Your task to perform on an android device: Open calendar and show me the first week of next month Image 0: 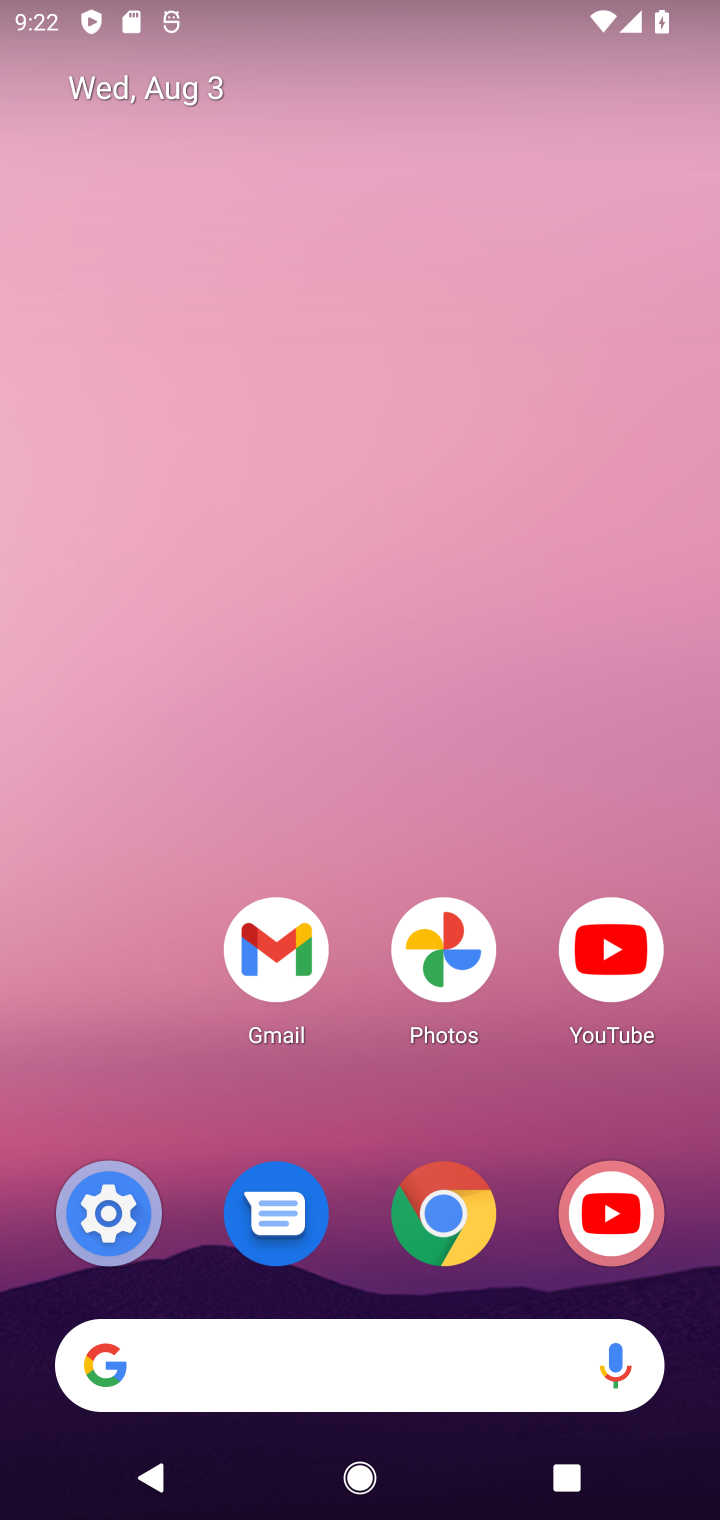
Step 0: drag from (335, 1129) to (336, 95)
Your task to perform on an android device: Open calendar and show me the first week of next month Image 1: 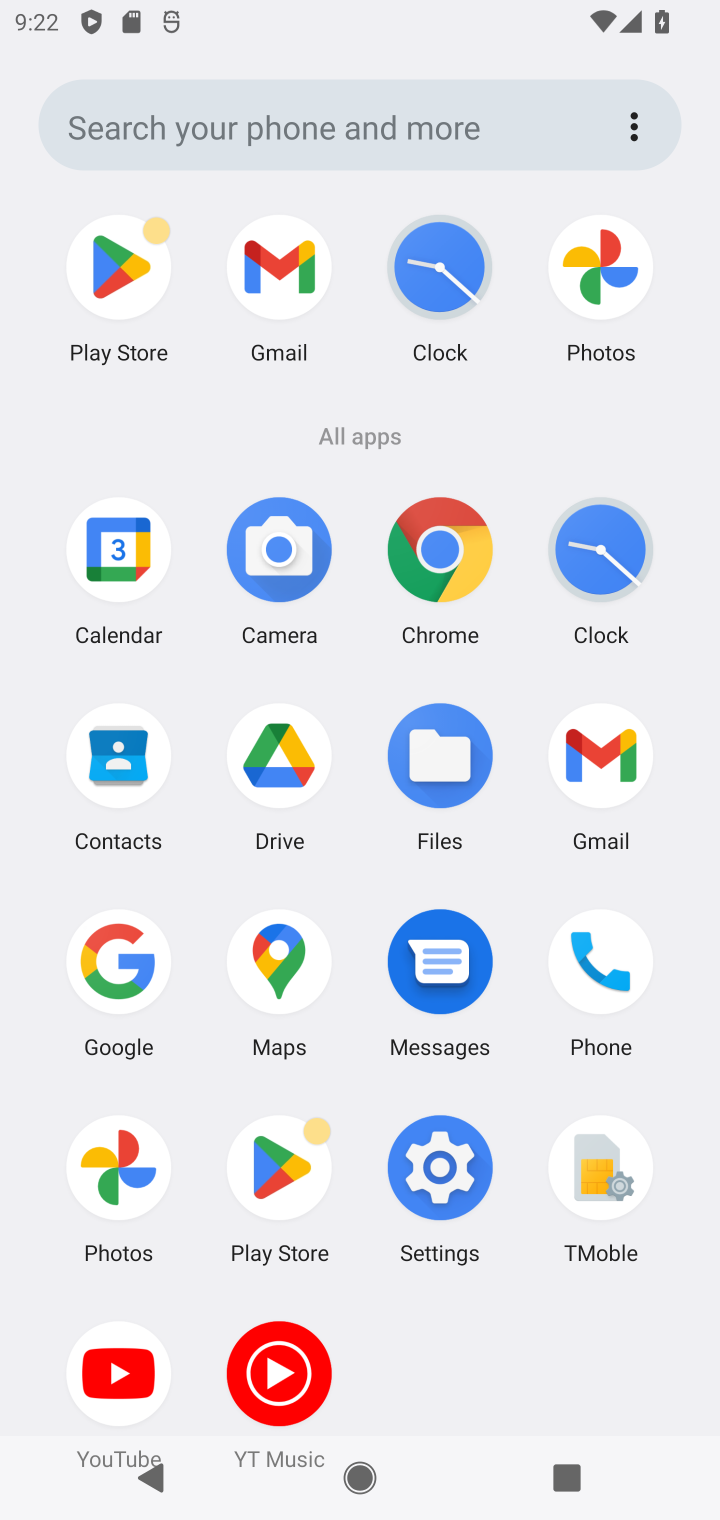
Step 1: click (104, 552)
Your task to perform on an android device: Open calendar and show me the first week of next month Image 2: 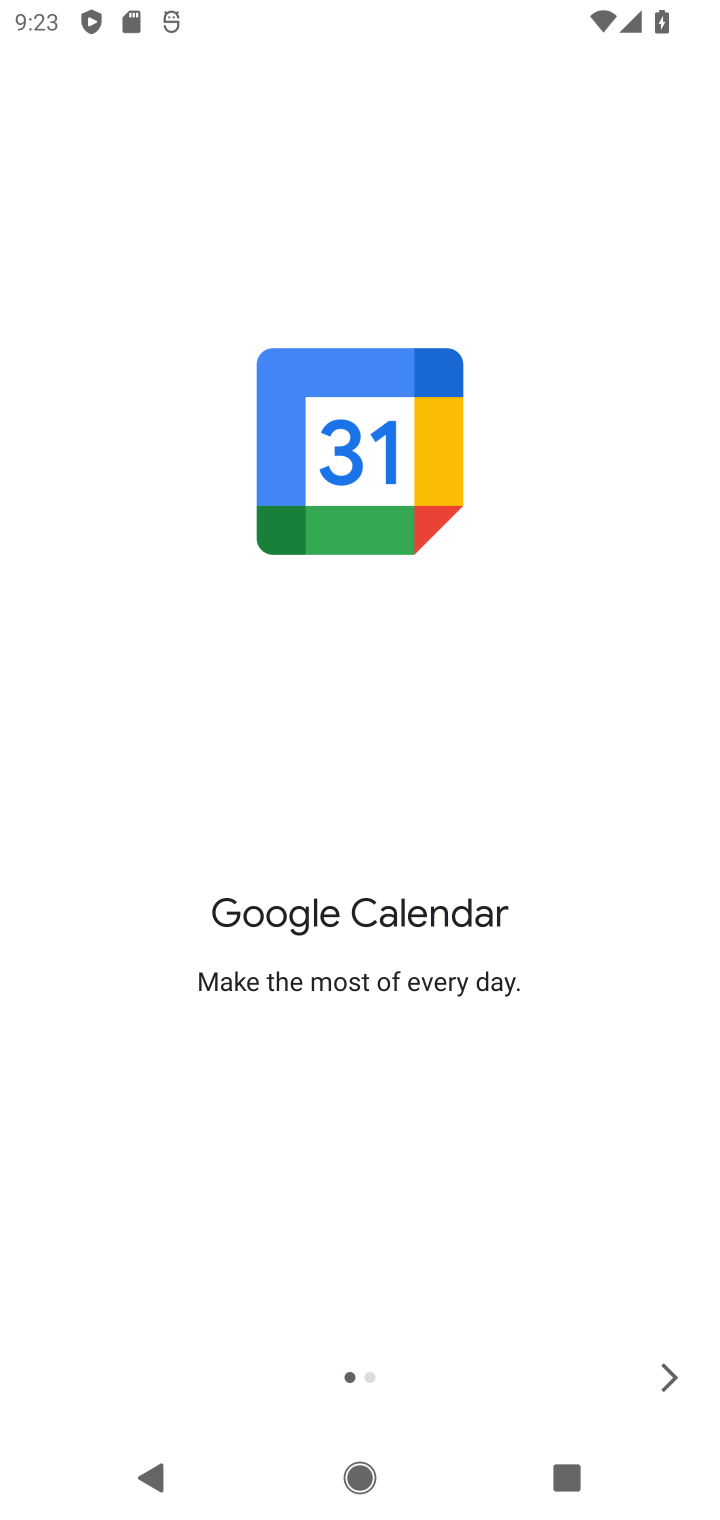
Step 2: click (680, 1381)
Your task to perform on an android device: Open calendar and show me the first week of next month Image 3: 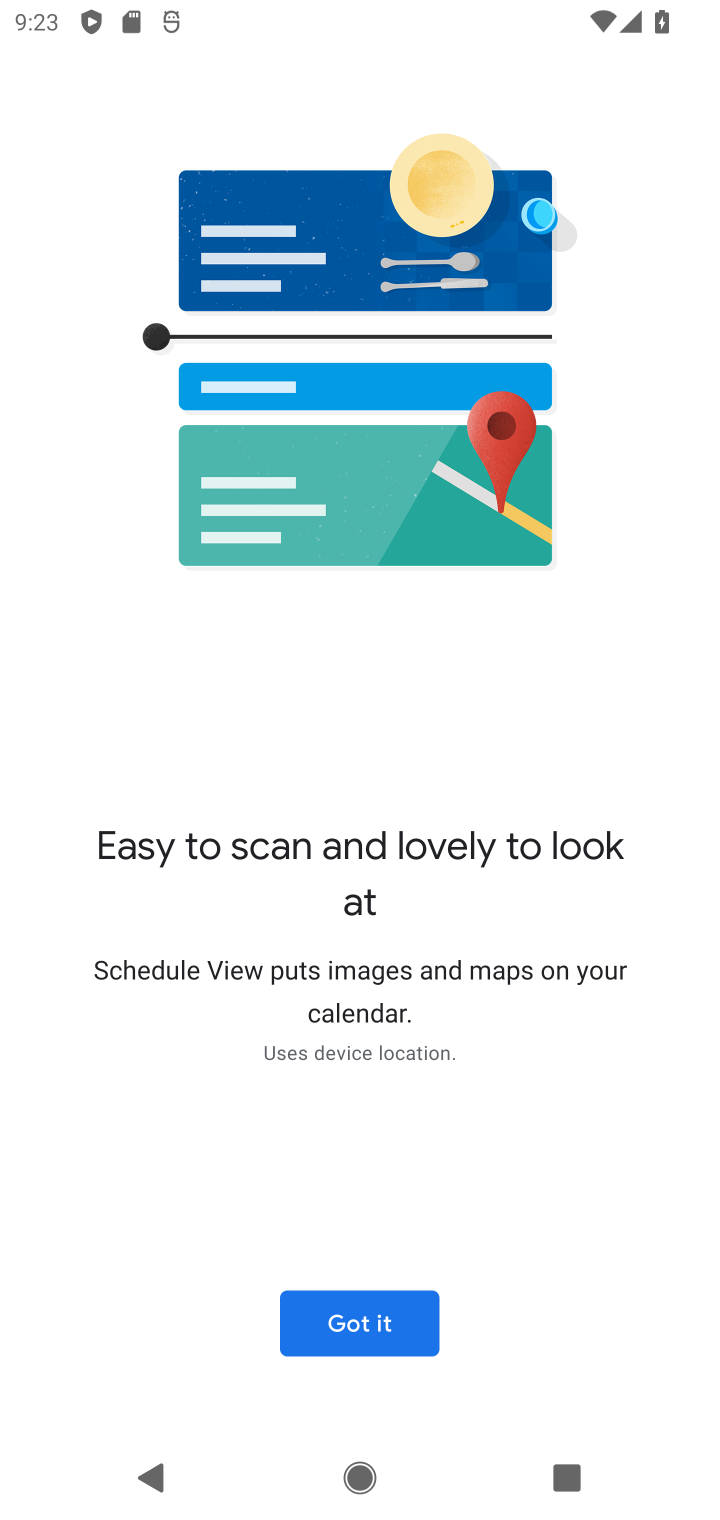
Step 3: click (398, 1319)
Your task to perform on an android device: Open calendar and show me the first week of next month Image 4: 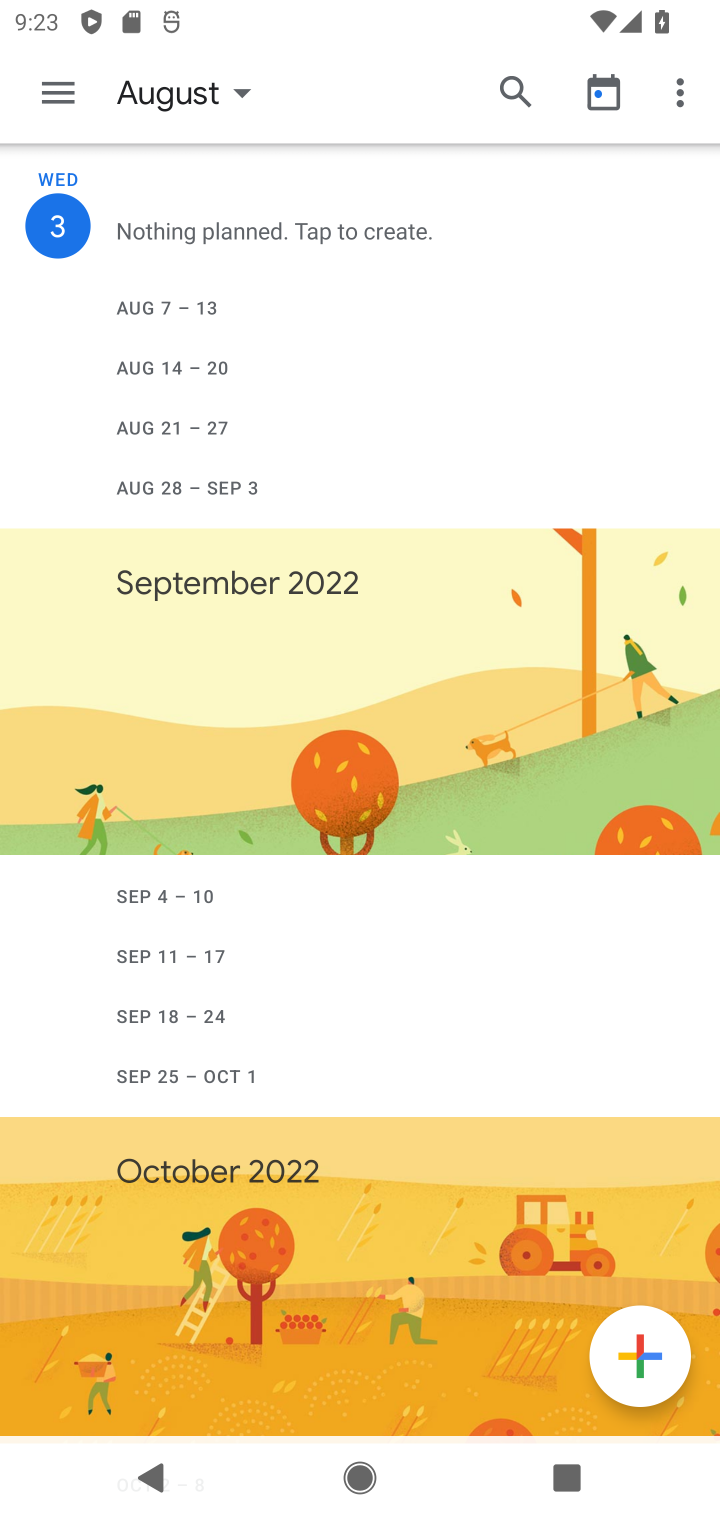
Step 4: click (74, 87)
Your task to perform on an android device: Open calendar and show me the first week of next month Image 5: 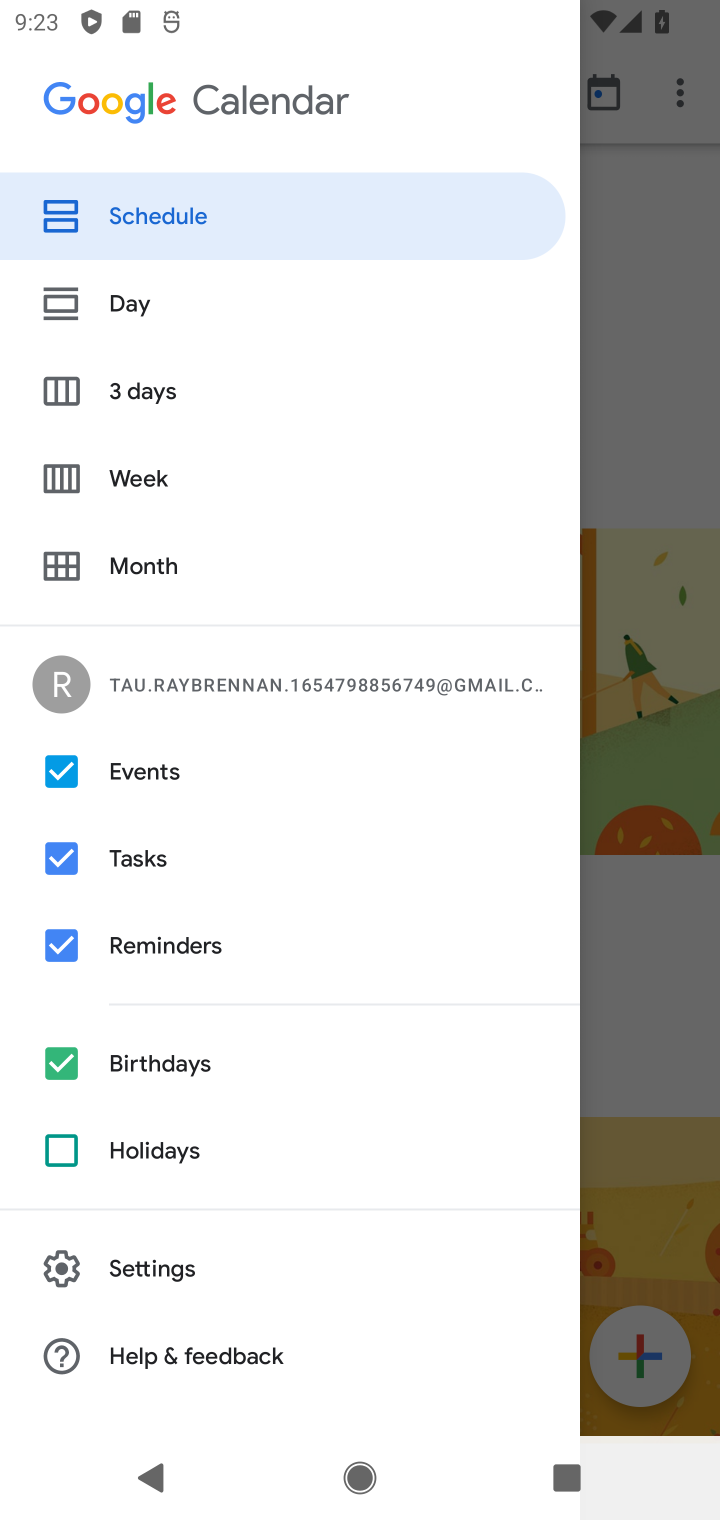
Step 5: click (160, 470)
Your task to perform on an android device: Open calendar and show me the first week of next month Image 6: 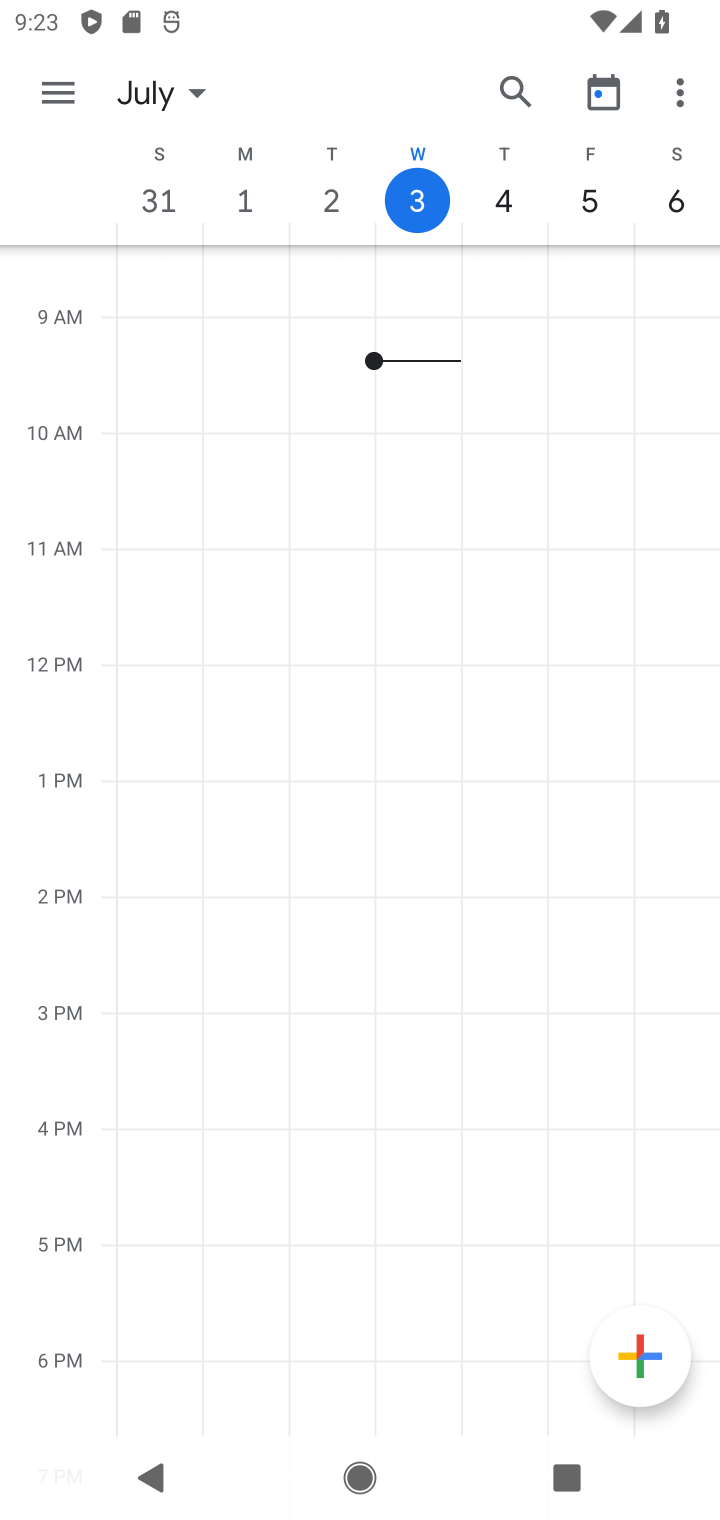
Step 6: click (206, 95)
Your task to perform on an android device: Open calendar and show me the first week of next month Image 7: 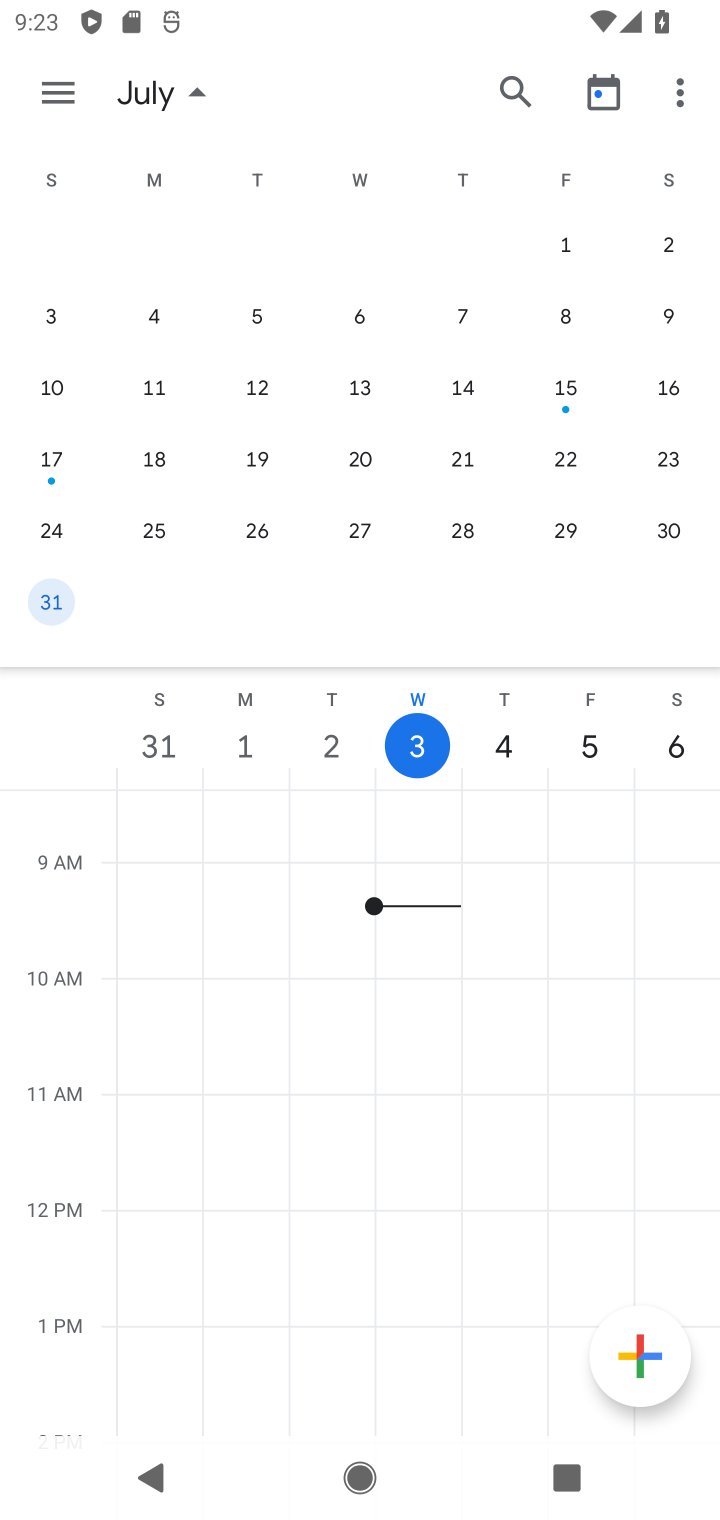
Step 7: drag from (615, 544) to (28, 489)
Your task to perform on an android device: Open calendar and show me the first week of next month Image 8: 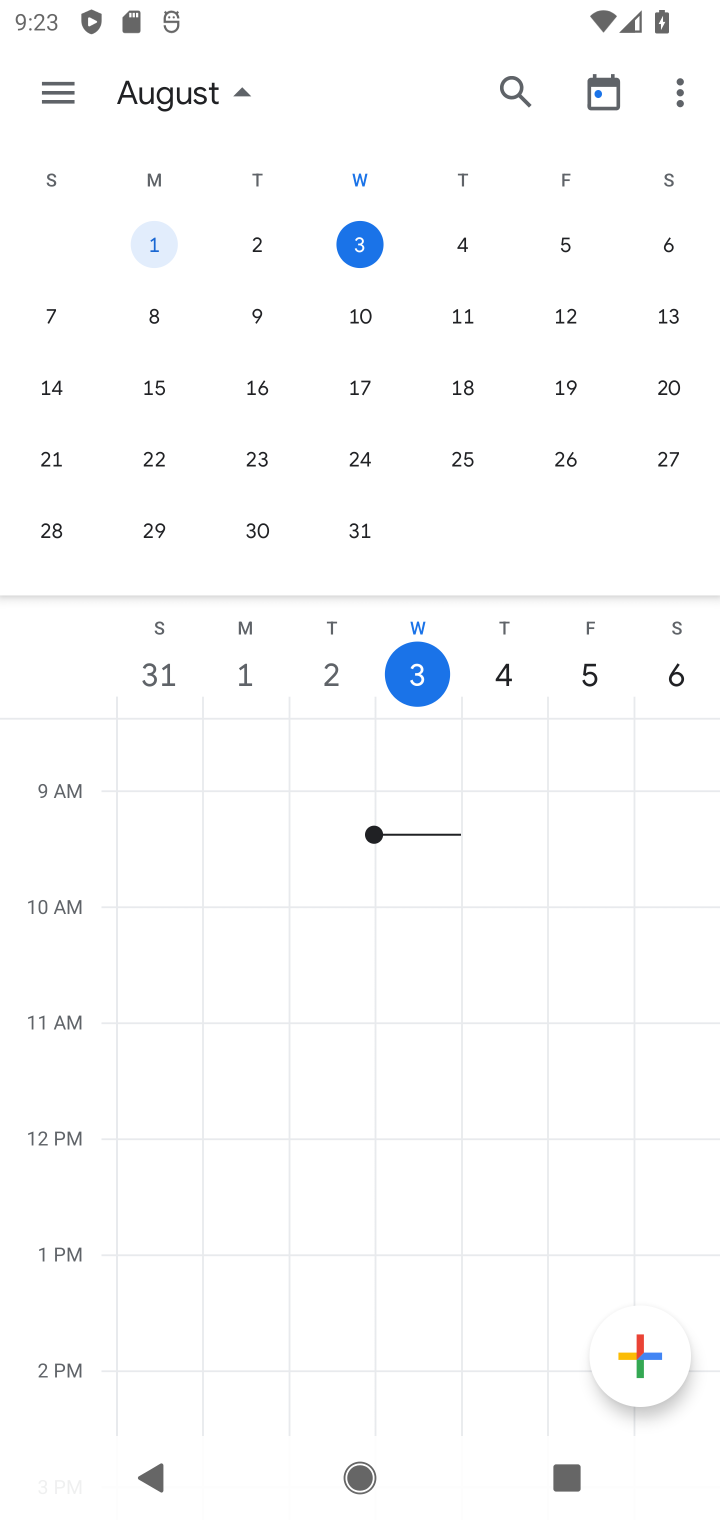
Step 8: drag from (616, 450) to (47, 435)
Your task to perform on an android device: Open calendar and show me the first week of next month Image 9: 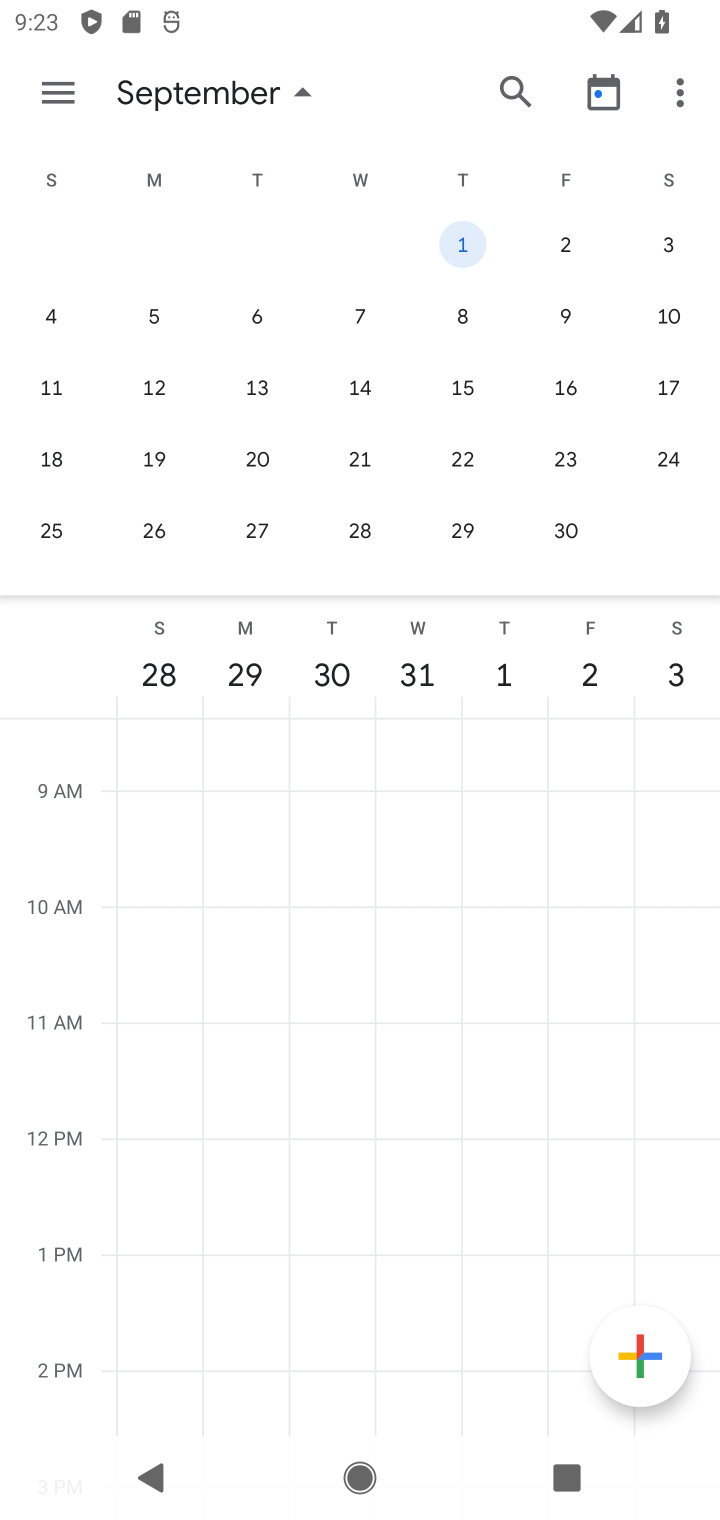
Step 9: click (453, 316)
Your task to perform on an android device: Open calendar and show me the first week of next month Image 10: 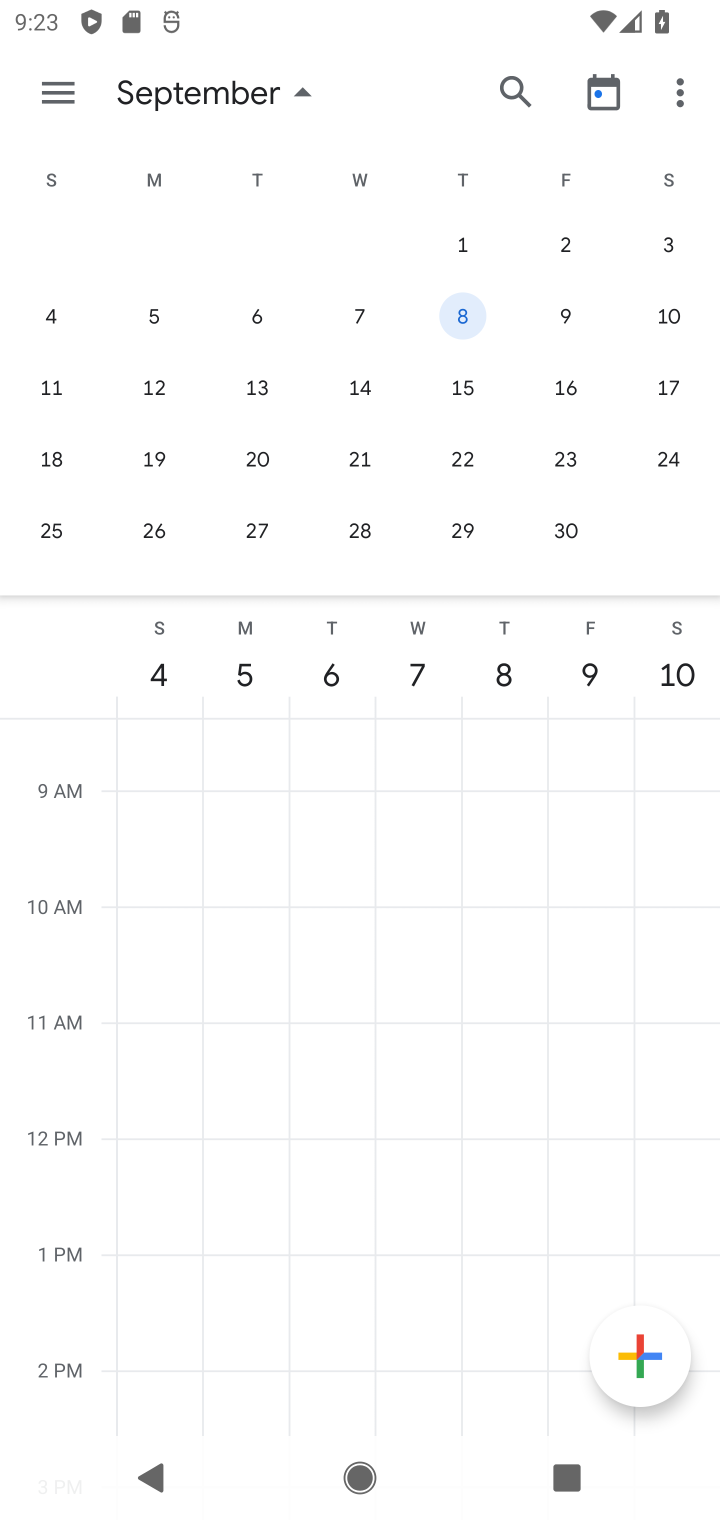
Step 10: task complete